Your task to perform on an android device: Open Chrome and go to settings Image 0: 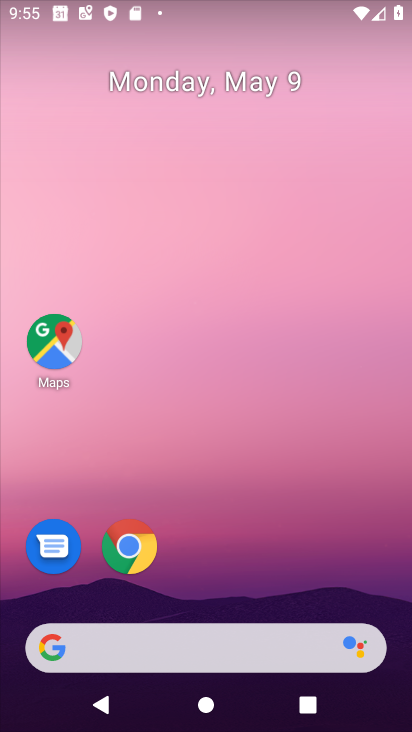
Step 0: click (136, 558)
Your task to perform on an android device: Open Chrome and go to settings Image 1: 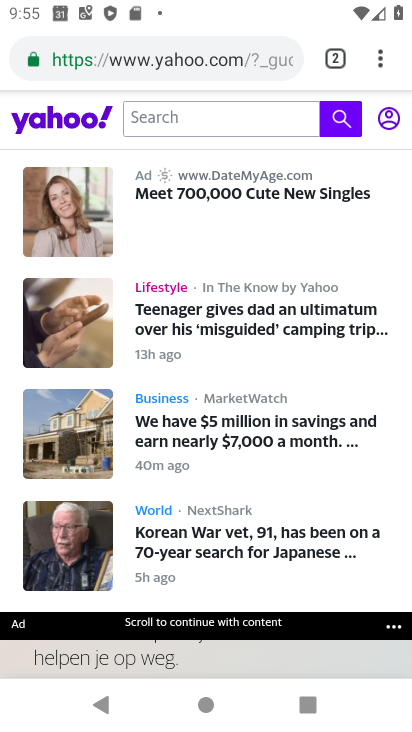
Step 1: click (381, 53)
Your task to perform on an android device: Open Chrome and go to settings Image 2: 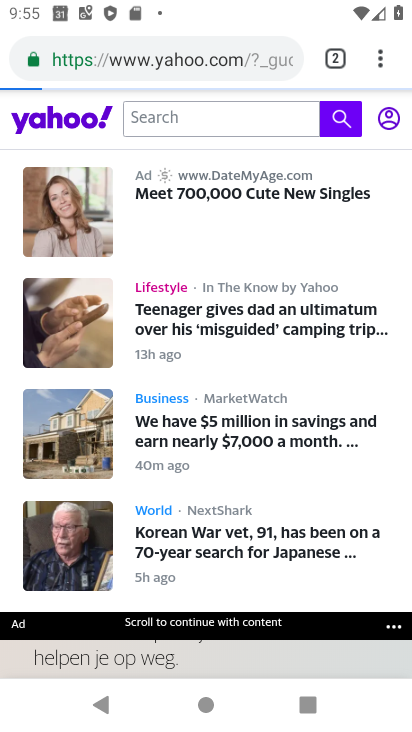
Step 2: drag from (293, 556) to (277, 135)
Your task to perform on an android device: Open Chrome and go to settings Image 3: 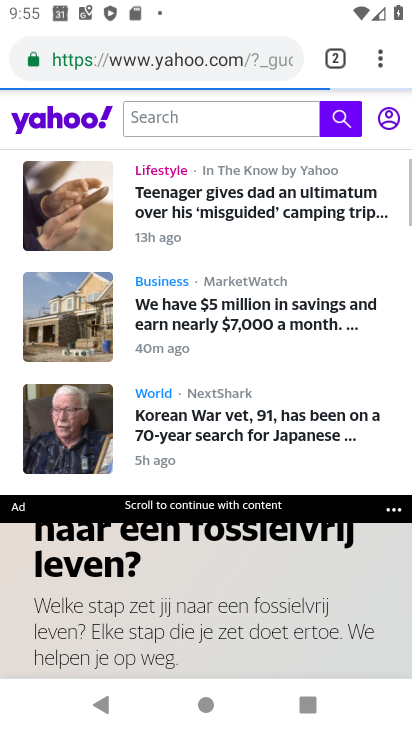
Step 3: drag from (376, 55) to (282, 586)
Your task to perform on an android device: Open Chrome and go to settings Image 4: 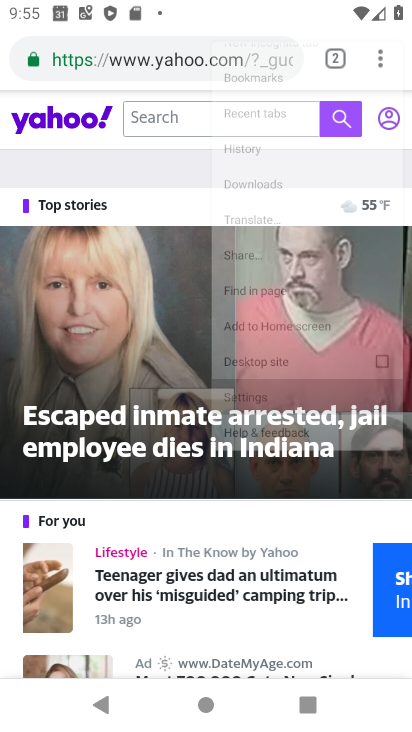
Step 4: click (282, 586)
Your task to perform on an android device: Open Chrome and go to settings Image 5: 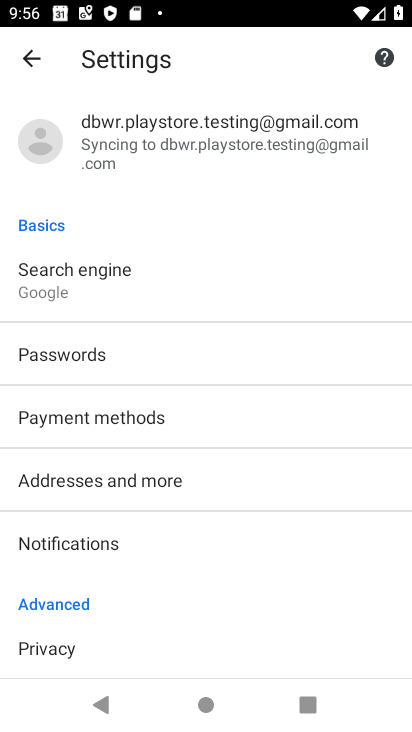
Step 5: task complete